Your task to perform on an android device: check data usage Image 0: 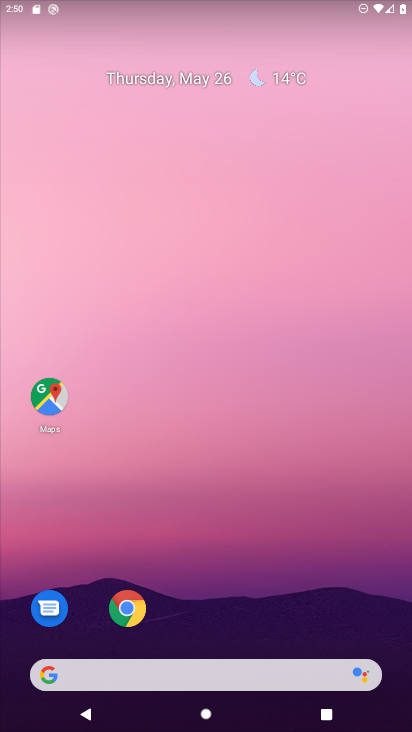
Step 0: drag from (287, 537) to (351, 103)
Your task to perform on an android device: check data usage Image 1: 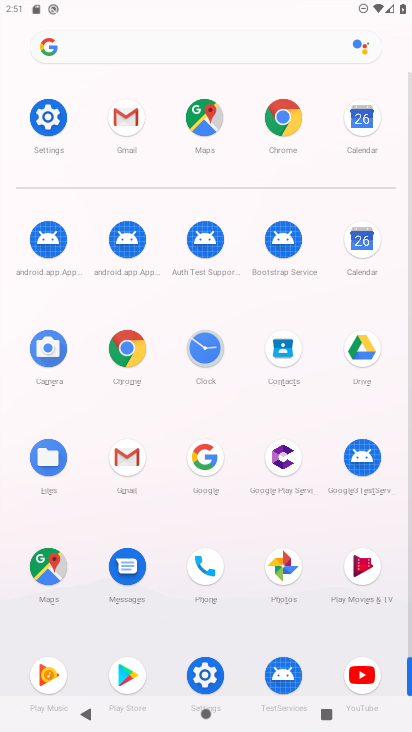
Step 1: click (48, 126)
Your task to perform on an android device: check data usage Image 2: 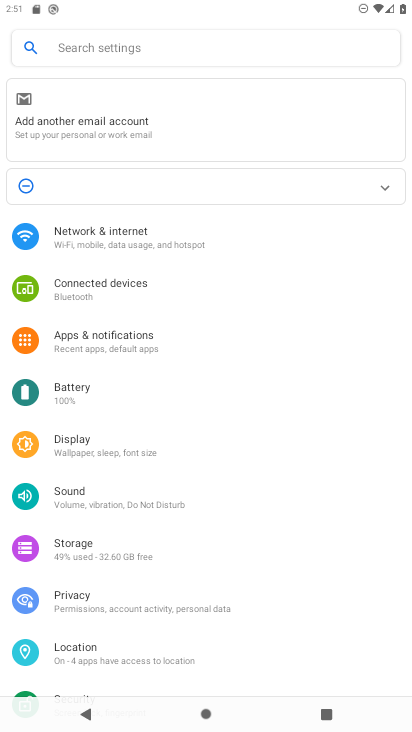
Step 2: click (132, 235)
Your task to perform on an android device: check data usage Image 3: 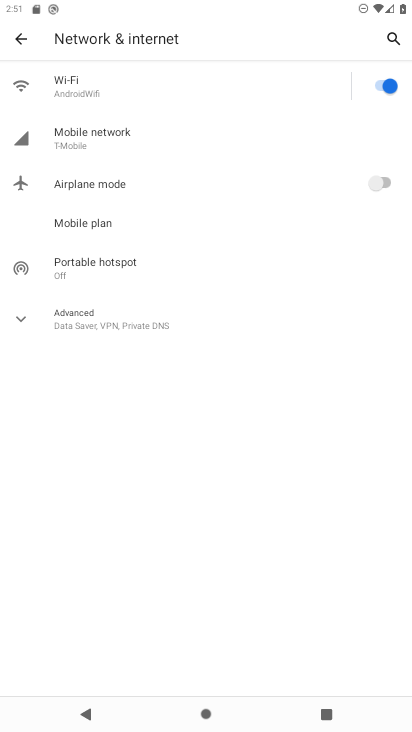
Step 3: click (86, 134)
Your task to perform on an android device: check data usage Image 4: 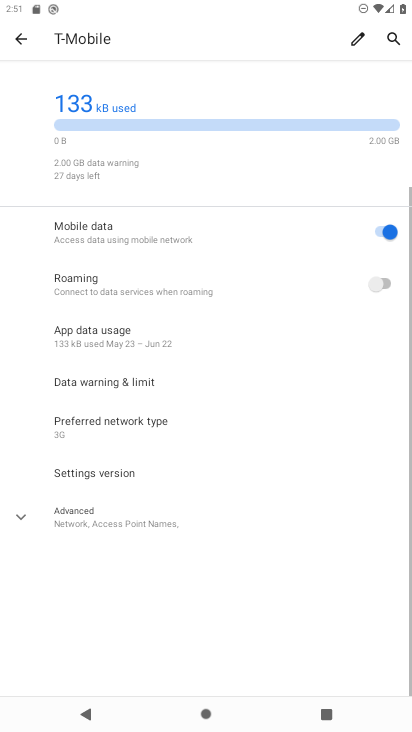
Step 4: task complete